Your task to perform on an android device: Clear the shopping cart on newegg.com. Add logitech g pro to the cart on newegg.com, then select checkout. Image 0: 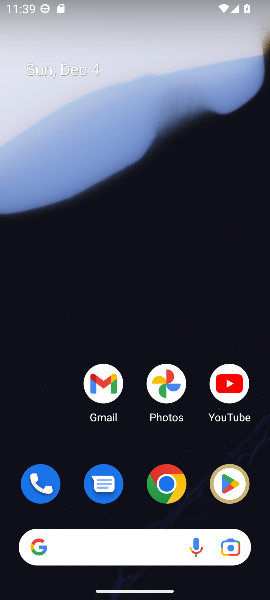
Step 0: click (164, 495)
Your task to perform on an android device: Clear the shopping cart on newegg.com. Add logitech g pro to the cart on newegg.com, then select checkout. Image 1: 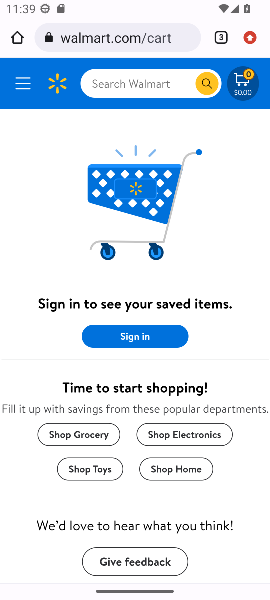
Step 1: click (128, 35)
Your task to perform on an android device: Clear the shopping cart on newegg.com. Add logitech g pro to the cart on newegg.com, then select checkout. Image 2: 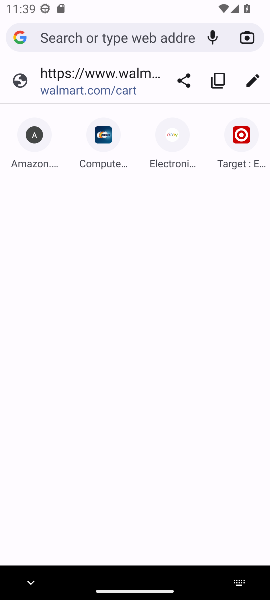
Step 2: click (90, 149)
Your task to perform on an android device: Clear the shopping cart on newegg.com. Add logitech g pro to the cart on newegg.com, then select checkout. Image 3: 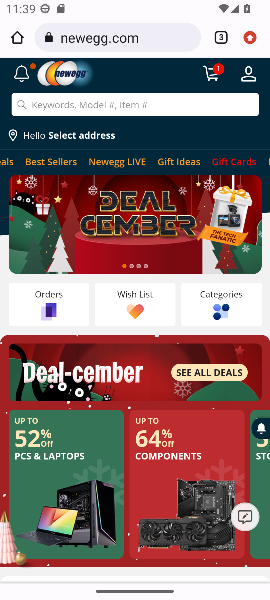
Step 3: click (208, 79)
Your task to perform on an android device: Clear the shopping cart on newegg.com. Add logitech g pro to the cart on newegg.com, then select checkout. Image 4: 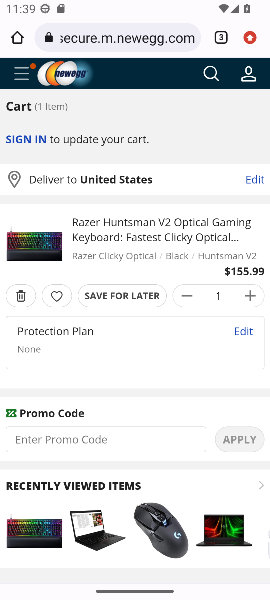
Step 4: click (24, 300)
Your task to perform on an android device: Clear the shopping cart on newegg.com. Add logitech g pro to the cart on newegg.com, then select checkout. Image 5: 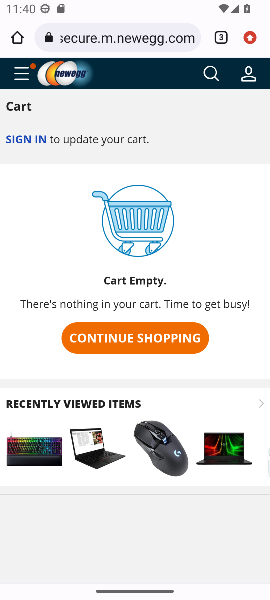
Step 5: click (208, 79)
Your task to perform on an android device: Clear the shopping cart on newegg.com. Add logitech g pro to the cart on newegg.com, then select checkout. Image 6: 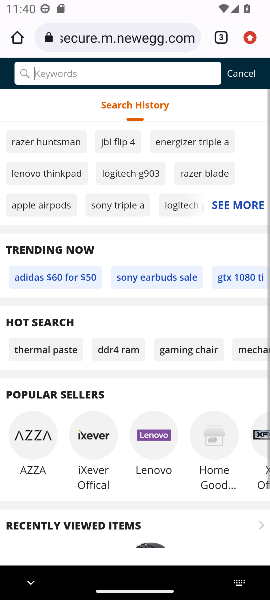
Step 6: type " logitech g pro"
Your task to perform on an android device: Clear the shopping cart on newegg.com. Add logitech g pro to the cart on newegg.com, then select checkout. Image 7: 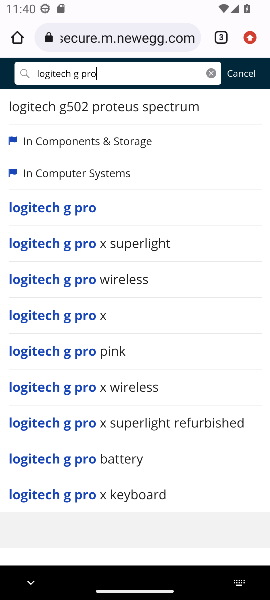
Step 7: click (53, 216)
Your task to perform on an android device: Clear the shopping cart on newegg.com. Add logitech g pro to the cart on newegg.com, then select checkout. Image 8: 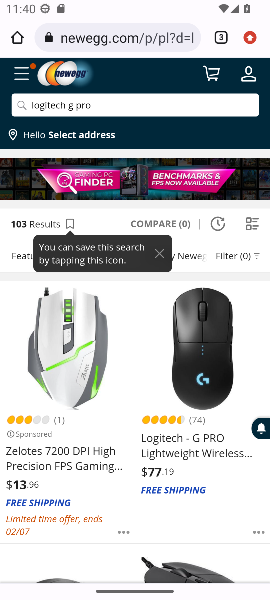
Step 8: click (179, 439)
Your task to perform on an android device: Clear the shopping cart on newegg.com. Add logitech g pro to the cart on newegg.com, then select checkout. Image 9: 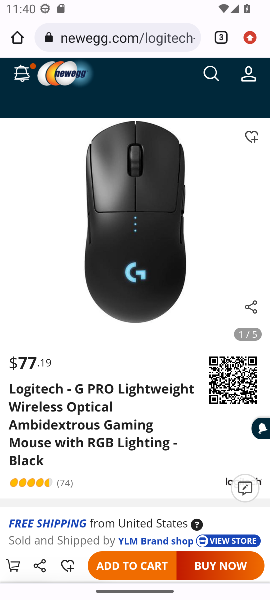
Step 9: click (142, 560)
Your task to perform on an android device: Clear the shopping cart on newegg.com. Add logitech g pro to the cart on newegg.com, then select checkout. Image 10: 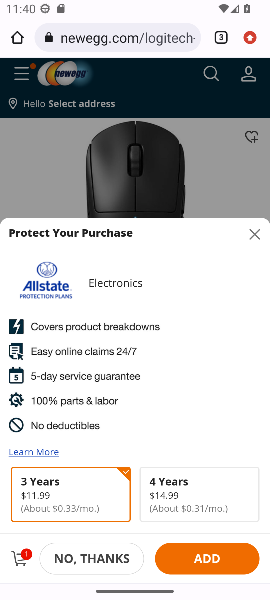
Step 10: click (22, 555)
Your task to perform on an android device: Clear the shopping cart on newegg.com. Add logitech g pro to the cart on newegg.com, then select checkout. Image 11: 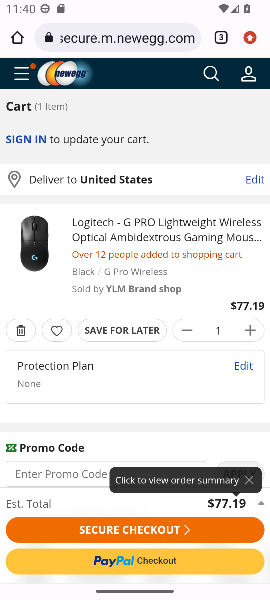
Step 11: click (131, 528)
Your task to perform on an android device: Clear the shopping cart on newegg.com. Add logitech g pro to the cart on newegg.com, then select checkout. Image 12: 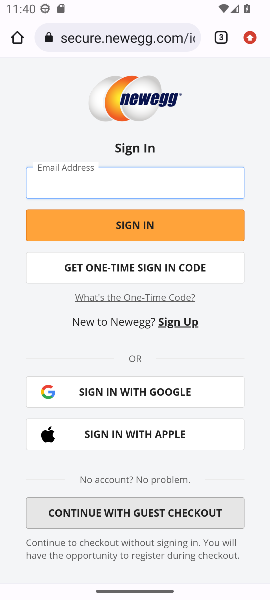
Step 12: task complete